Your task to perform on an android device: change the upload size in google photos Image 0: 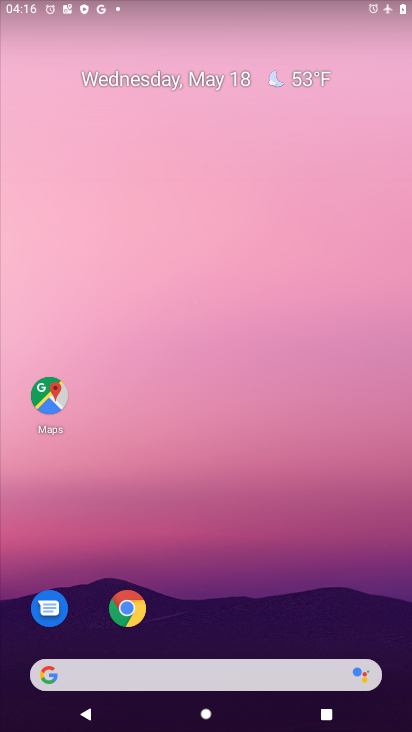
Step 0: drag from (287, 612) to (330, 73)
Your task to perform on an android device: change the upload size in google photos Image 1: 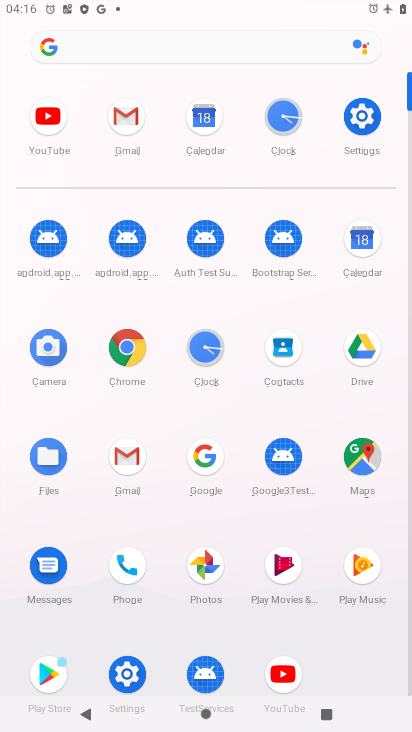
Step 1: click (210, 565)
Your task to perform on an android device: change the upload size in google photos Image 2: 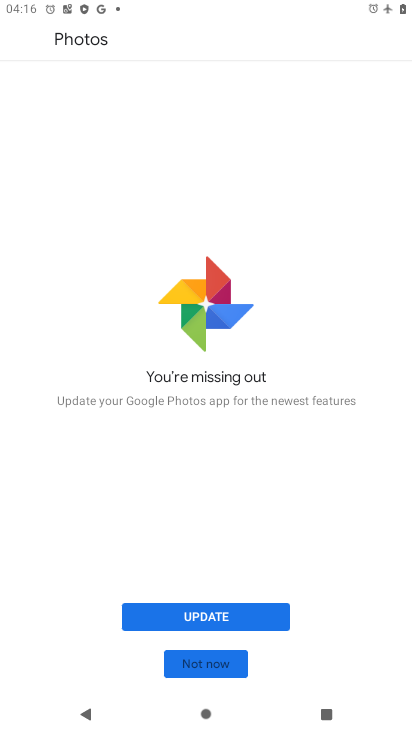
Step 2: click (205, 666)
Your task to perform on an android device: change the upload size in google photos Image 3: 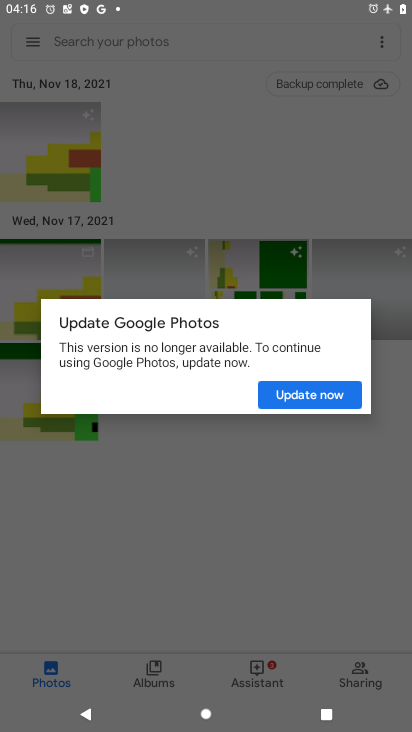
Step 3: click (346, 397)
Your task to perform on an android device: change the upload size in google photos Image 4: 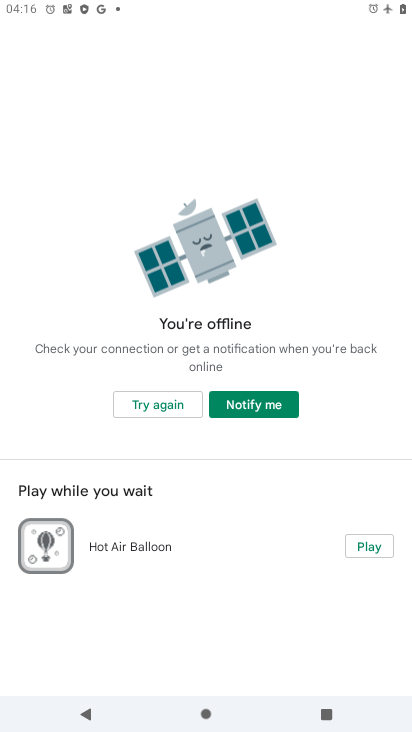
Step 4: press back button
Your task to perform on an android device: change the upload size in google photos Image 5: 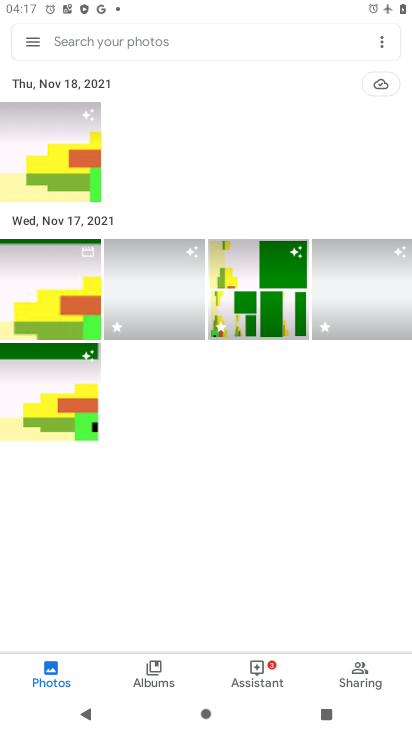
Step 5: click (29, 43)
Your task to perform on an android device: change the upload size in google photos Image 6: 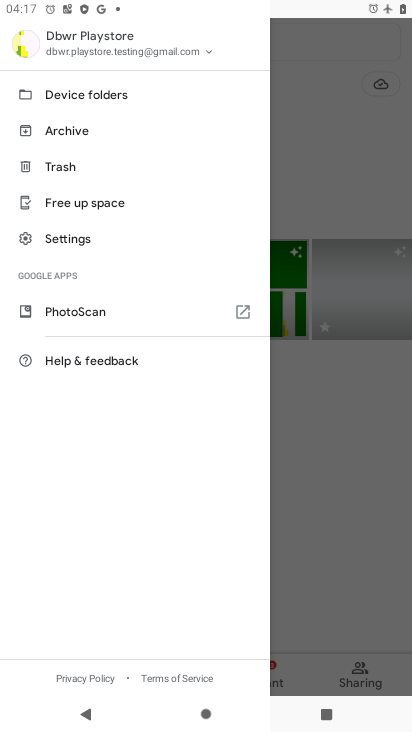
Step 6: click (61, 243)
Your task to perform on an android device: change the upload size in google photos Image 7: 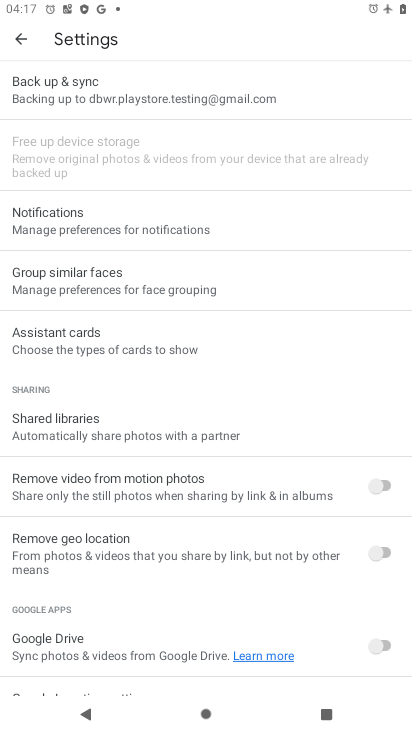
Step 7: click (67, 90)
Your task to perform on an android device: change the upload size in google photos Image 8: 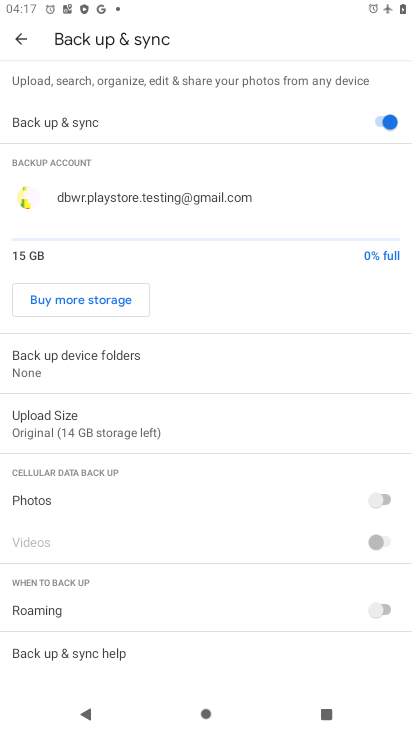
Step 8: click (56, 433)
Your task to perform on an android device: change the upload size in google photos Image 9: 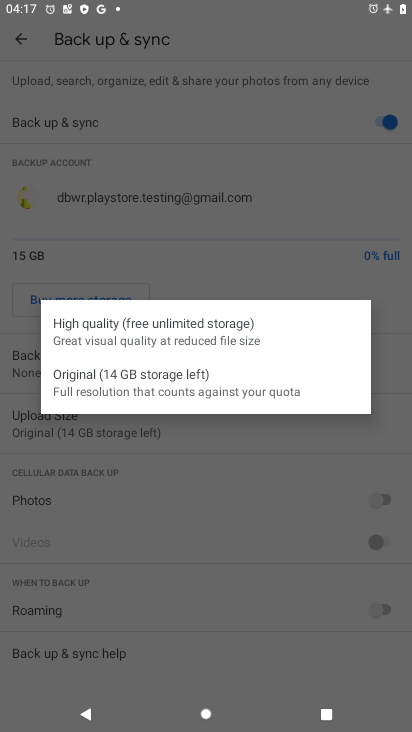
Step 9: click (62, 332)
Your task to perform on an android device: change the upload size in google photos Image 10: 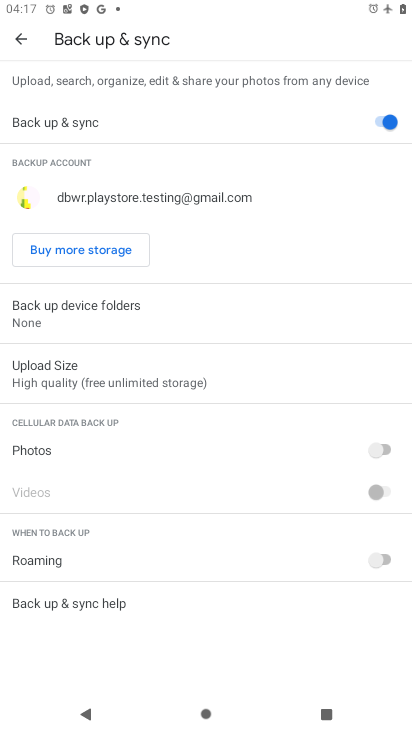
Step 10: task complete